Your task to perform on an android device: show emergency info Image 0: 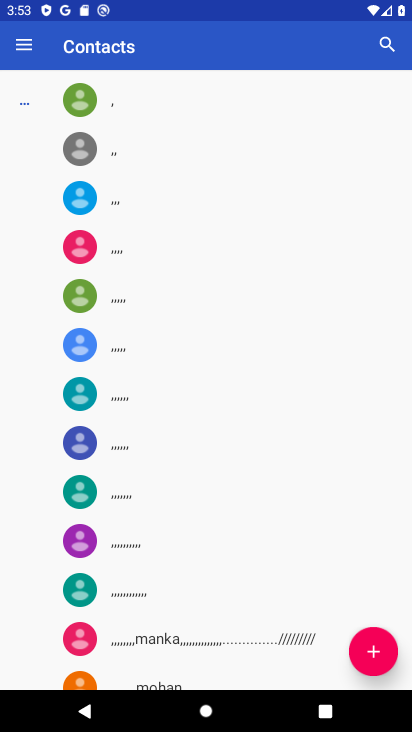
Step 0: press home button
Your task to perform on an android device: show emergency info Image 1: 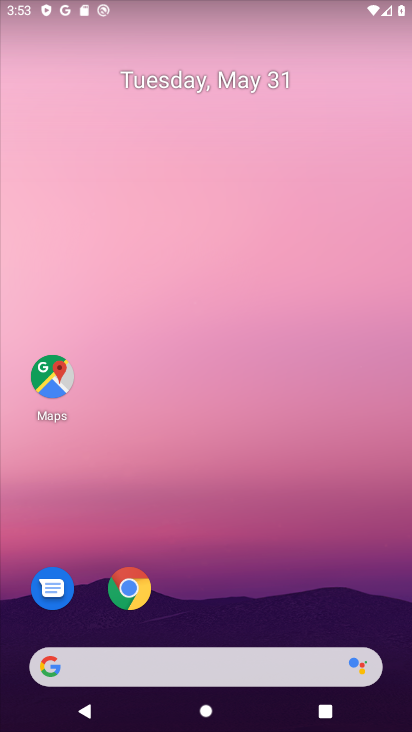
Step 1: drag from (212, 645) to (241, 203)
Your task to perform on an android device: show emergency info Image 2: 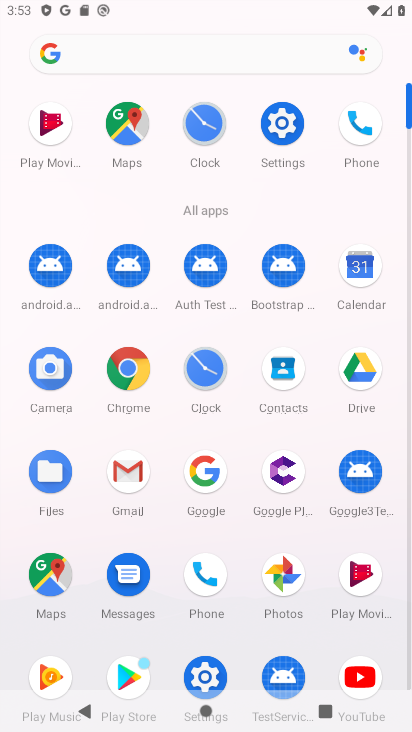
Step 2: drag from (194, 610) to (235, 246)
Your task to perform on an android device: show emergency info Image 3: 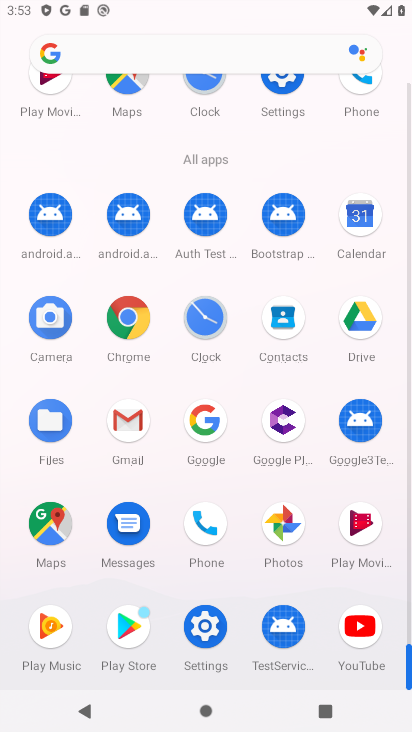
Step 3: click (206, 645)
Your task to perform on an android device: show emergency info Image 4: 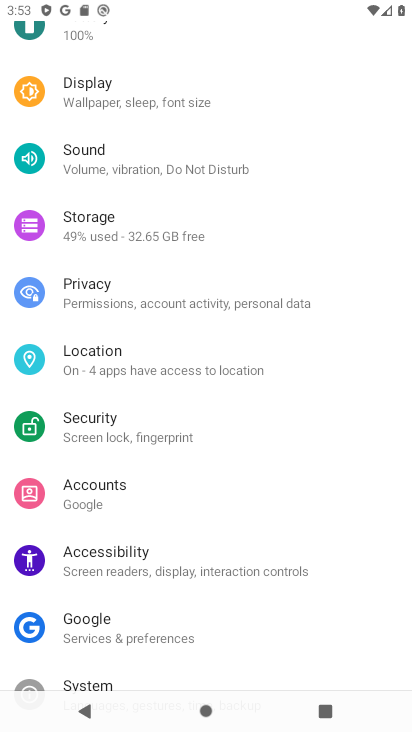
Step 4: drag from (206, 645) to (208, 339)
Your task to perform on an android device: show emergency info Image 5: 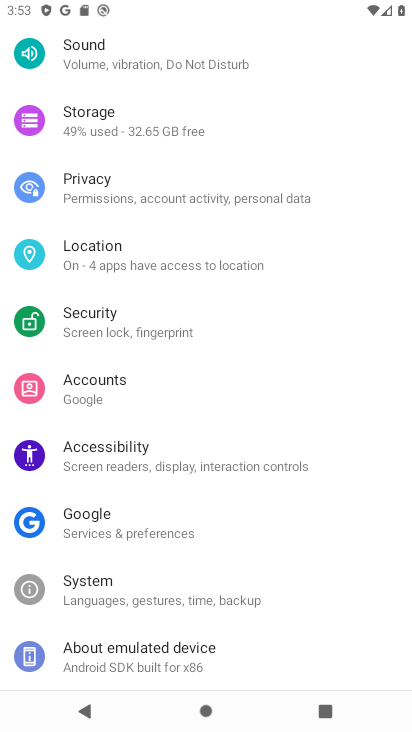
Step 5: click (108, 598)
Your task to perform on an android device: show emergency info Image 6: 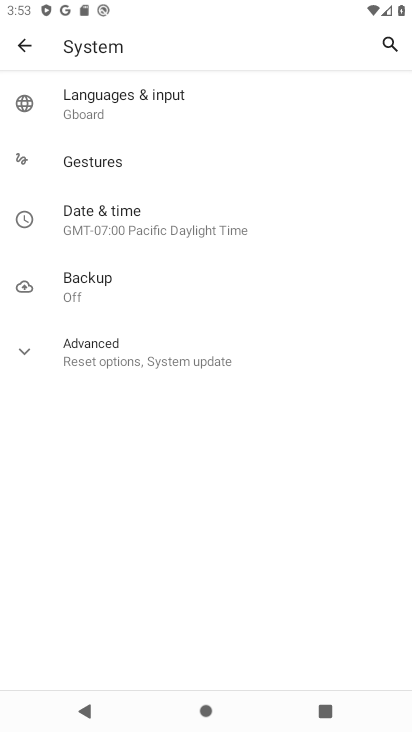
Step 6: click (32, 46)
Your task to perform on an android device: show emergency info Image 7: 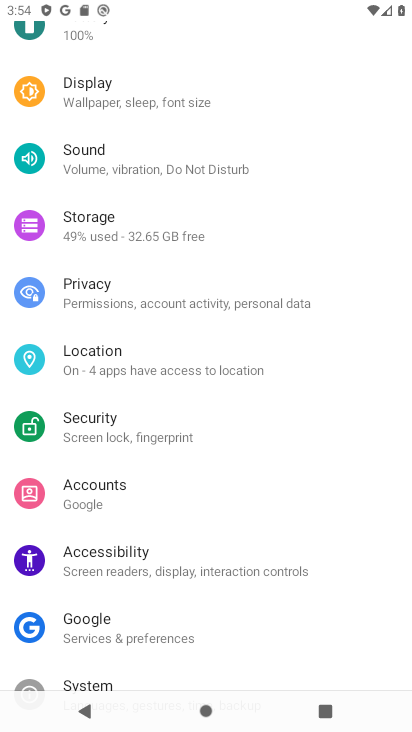
Step 7: drag from (107, 632) to (155, 248)
Your task to perform on an android device: show emergency info Image 8: 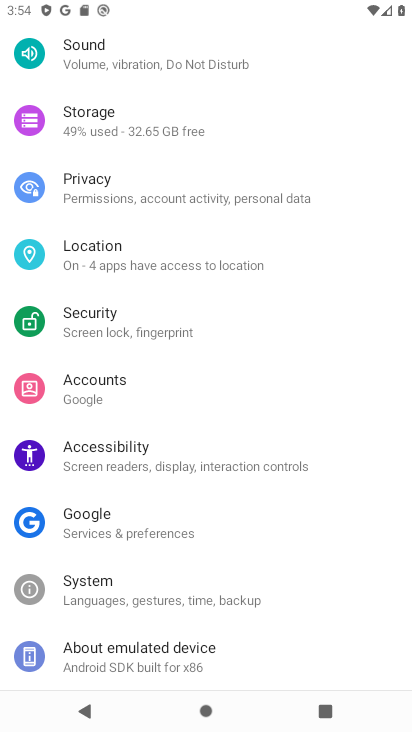
Step 8: click (112, 642)
Your task to perform on an android device: show emergency info Image 9: 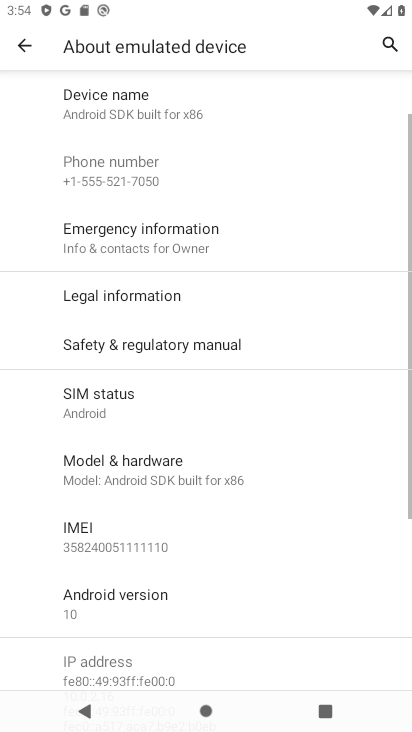
Step 9: click (129, 215)
Your task to perform on an android device: show emergency info Image 10: 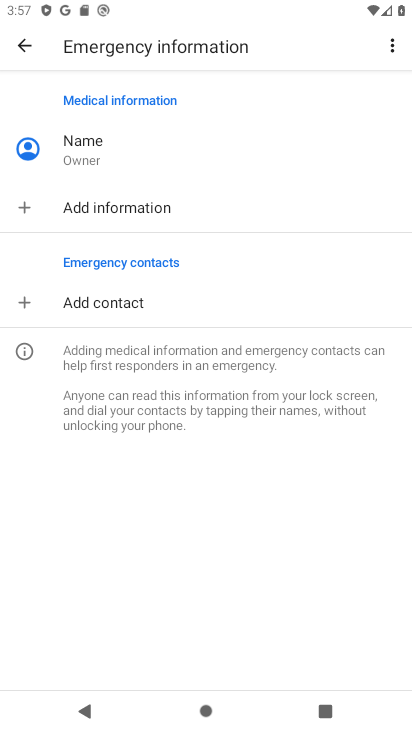
Step 10: task complete